Your task to perform on an android device: change the clock display to show seconds Image 0: 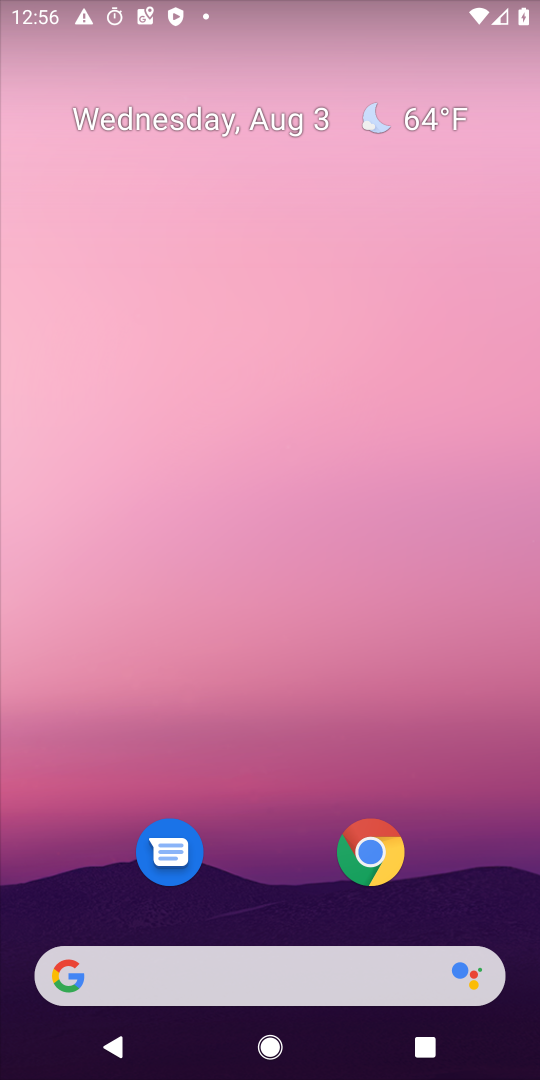
Step 0: drag from (514, 913) to (173, 50)
Your task to perform on an android device: change the clock display to show seconds Image 1: 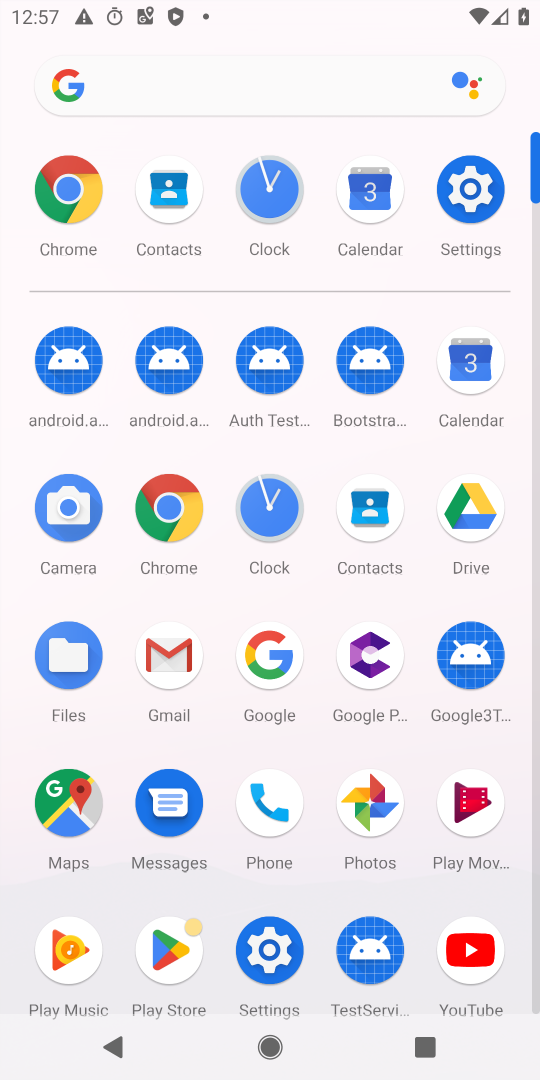
Step 1: click (257, 505)
Your task to perform on an android device: change the clock display to show seconds Image 2: 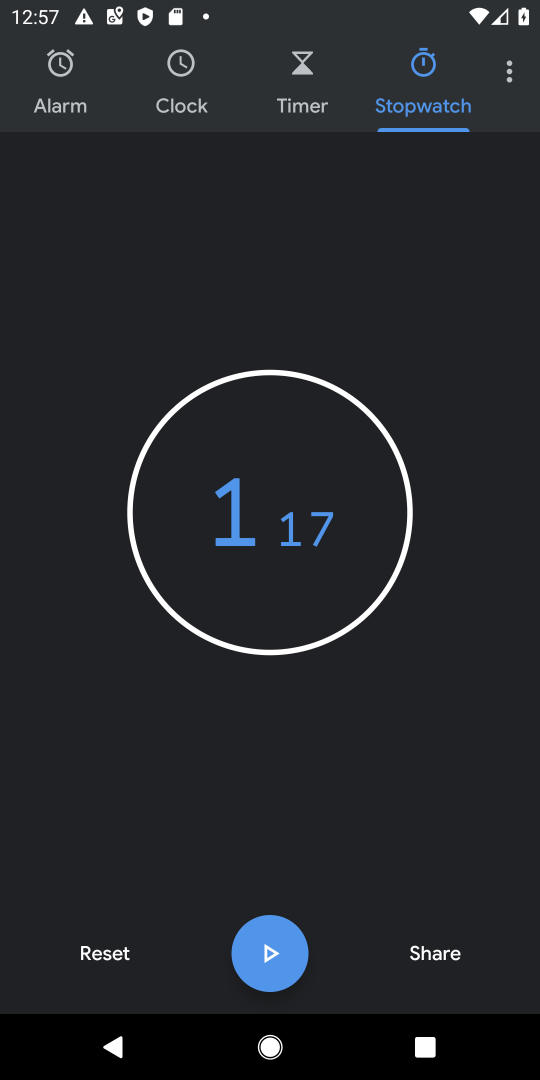
Step 2: click (518, 67)
Your task to perform on an android device: change the clock display to show seconds Image 3: 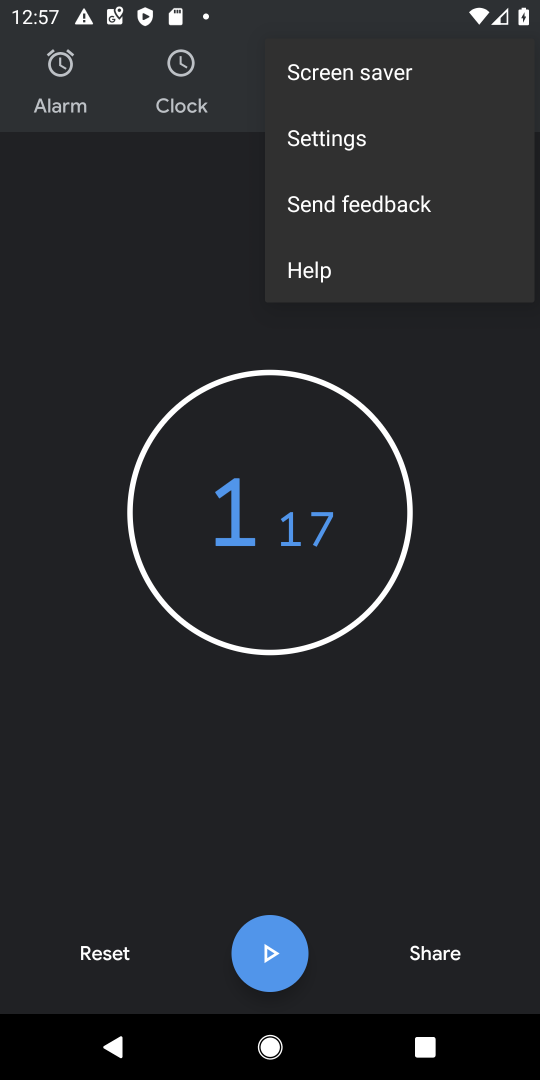
Step 3: click (330, 132)
Your task to perform on an android device: change the clock display to show seconds Image 4: 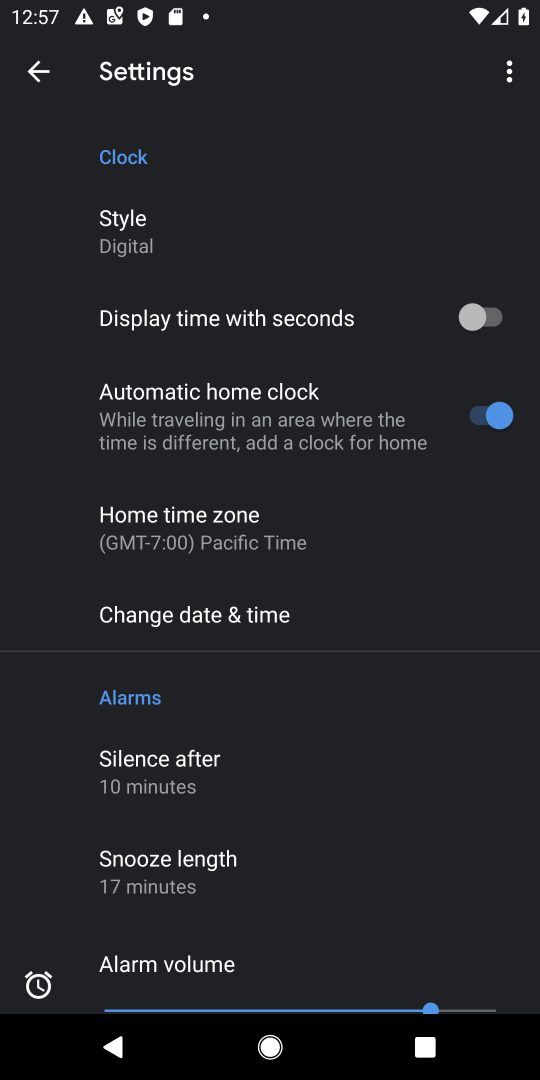
Step 4: click (457, 313)
Your task to perform on an android device: change the clock display to show seconds Image 5: 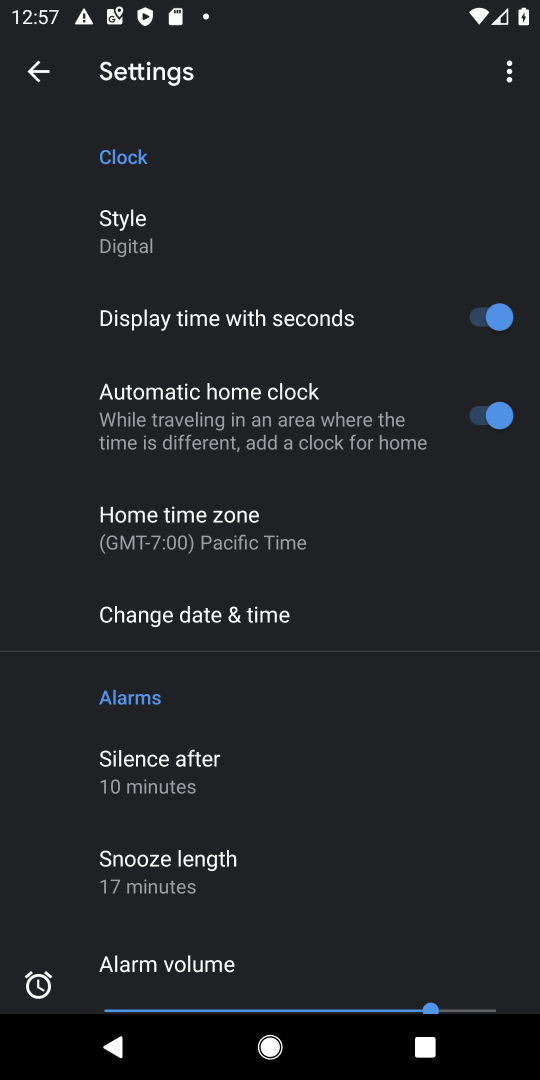
Step 5: task complete